Your task to perform on an android device: check data usage Image 0: 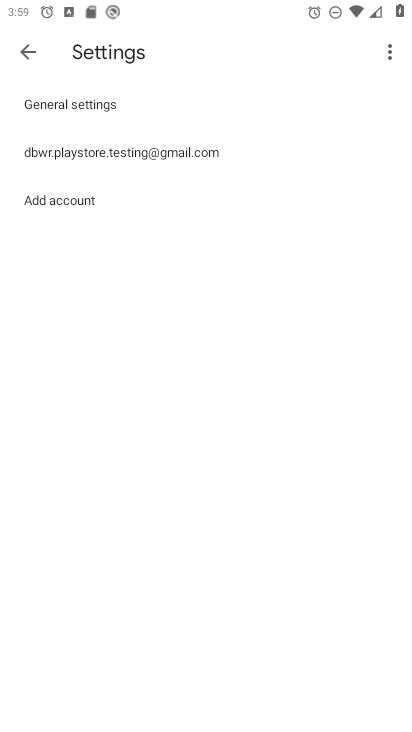
Step 0: press home button
Your task to perform on an android device: check data usage Image 1: 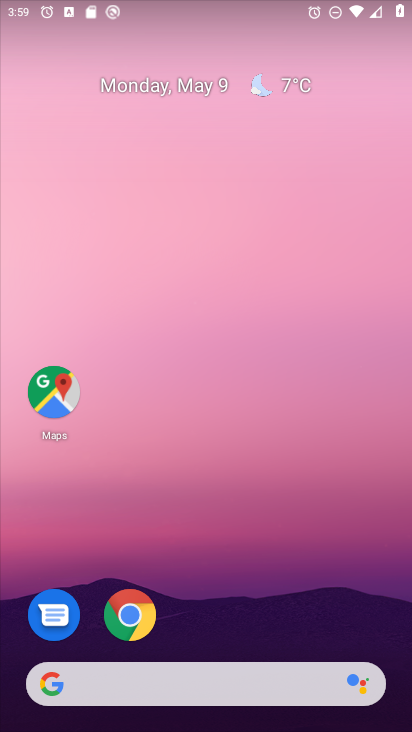
Step 1: drag from (367, 644) to (287, 92)
Your task to perform on an android device: check data usage Image 2: 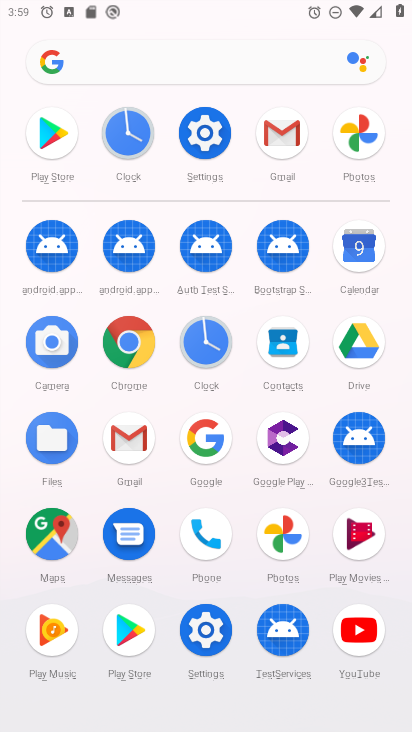
Step 2: click (203, 631)
Your task to perform on an android device: check data usage Image 3: 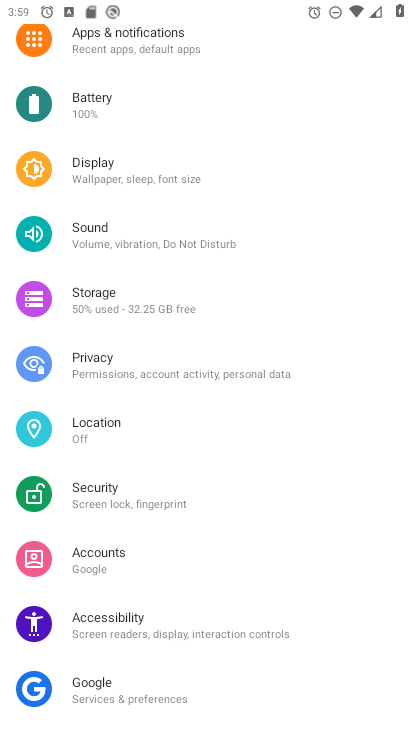
Step 3: drag from (302, 138) to (345, 467)
Your task to perform on an android device: check data usage Image 4: 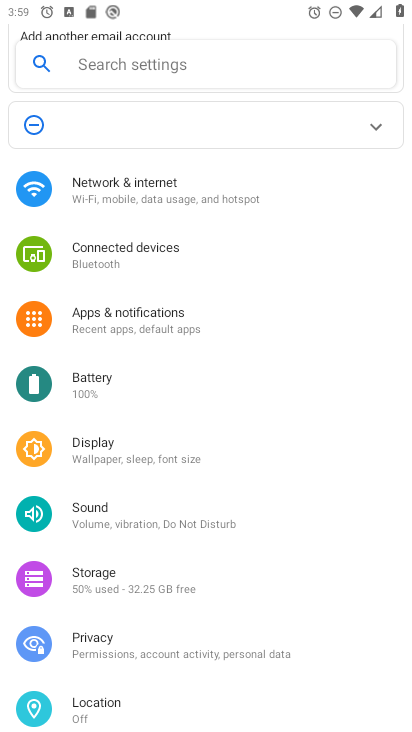
Step 4: click (104, 183)
Your task to perform on an android device: check data usage Image 5: 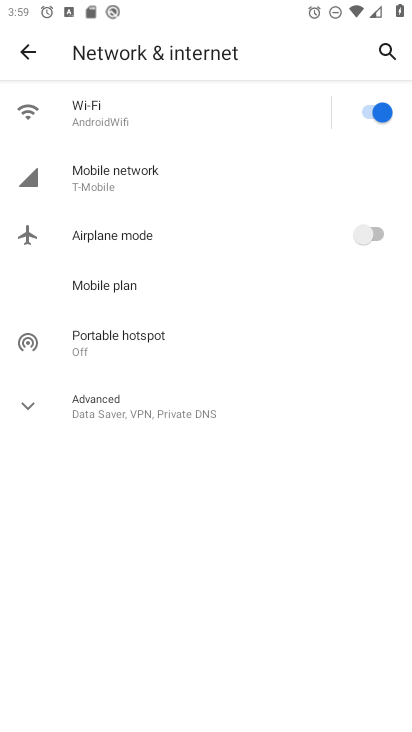
Step 5: click (95, 179)
Your task to perform on an android device: check data usage Image 6: 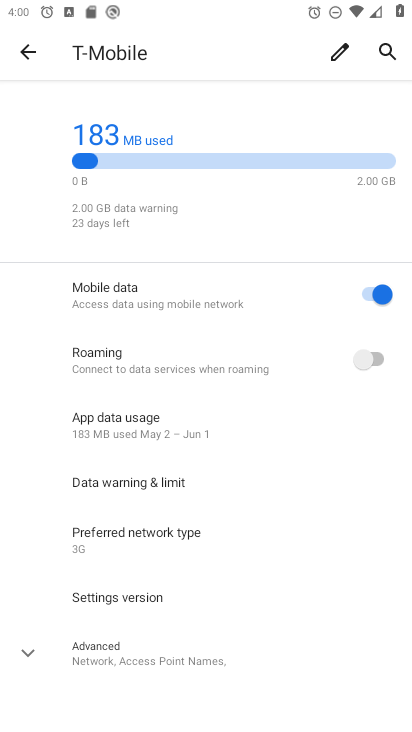
Step 6: task complete